Your task to perform on an android device: turn on the 12-hour format for clock Image 0: 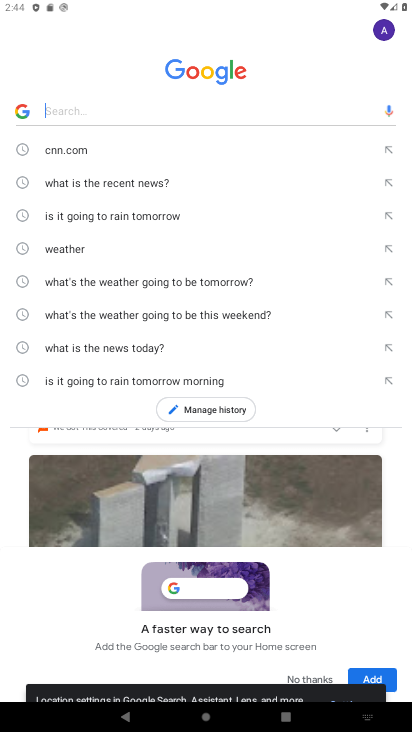
Step 0: press home button
Your task to perform on an android device: turn on the 12-hour format for clock Image 1: 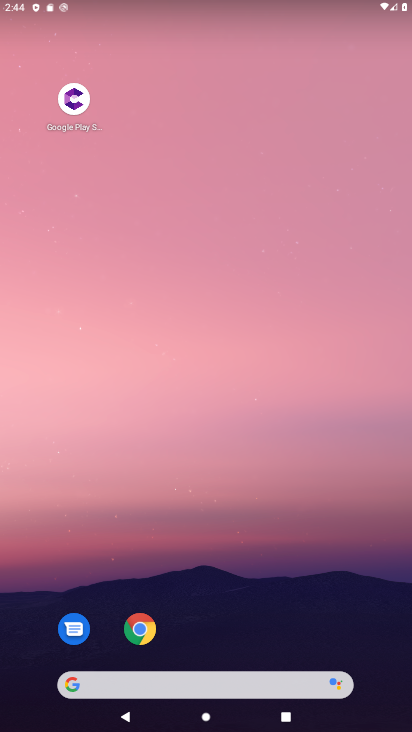
Step 1: drag from (224, 606) to (277, 288)
Your task to perform on an android device: turn on the 12-hour format for clock Image 2: 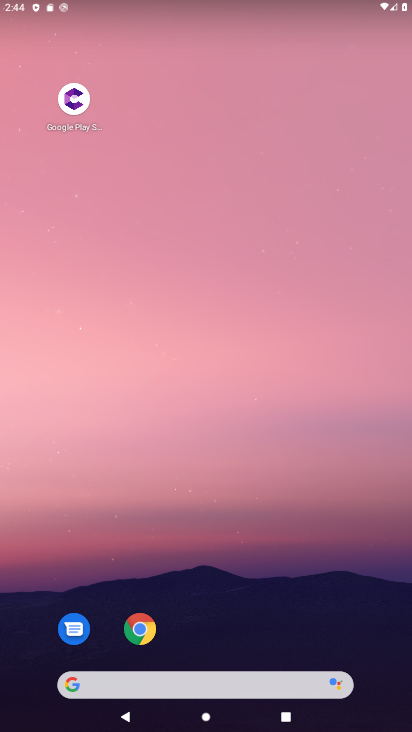
Step 2: drag from (234, 666) to (357, 95)
Your task to perform on an android device: turn on the 12-hour format for clock Image 3: 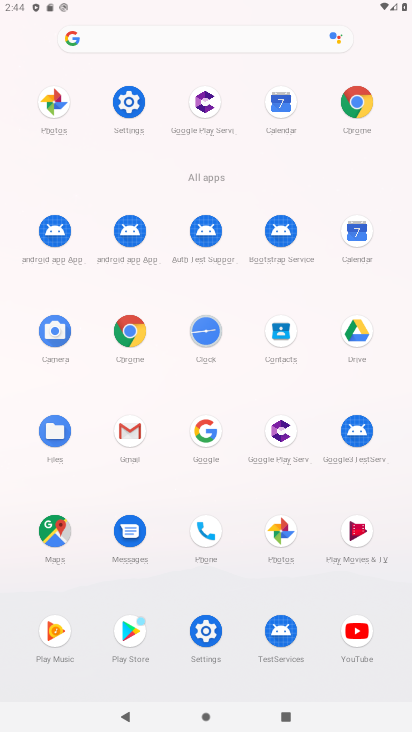
Step 3: click (209, 335)
Your task to perform on an android device: turn on the 12-hour format for clock Image 4: 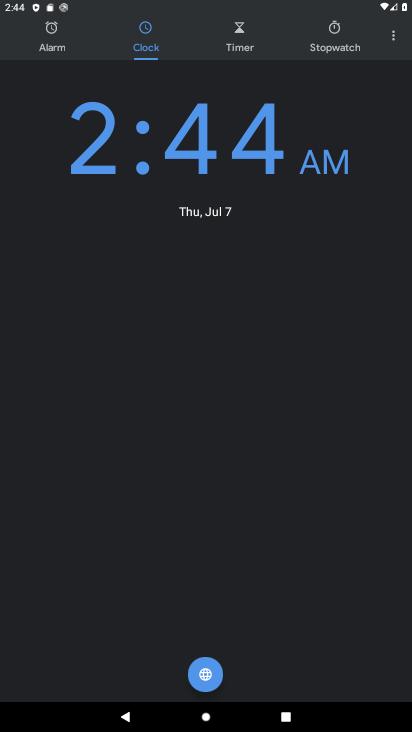
Step 4: click (390, 42)
Your task to perform on an android device: turn on the 12-hour format for clock Image 5: 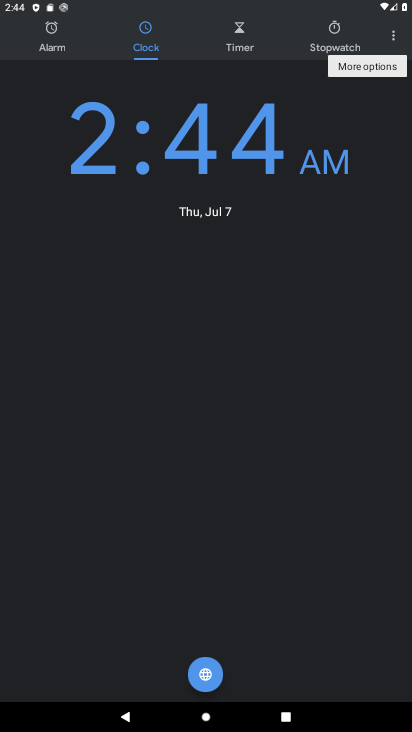
Step 5: click (393, 36)
Your task to perform on an android device: turn on the 12-hour format for clock Image 6: 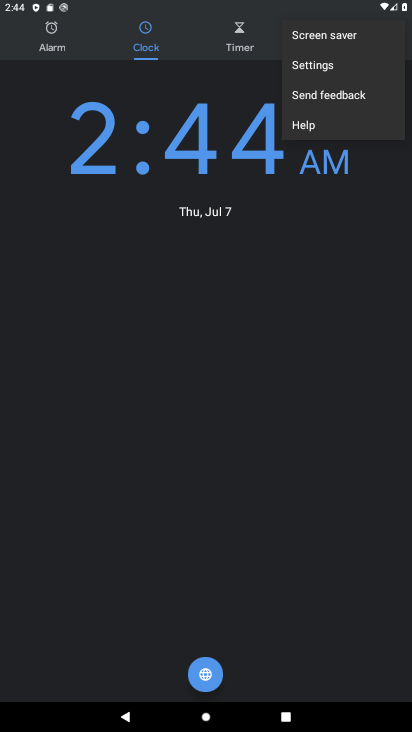
Step 6: click (367, 68)
Your task to perform on an android device: turn on the 12-hour format for clock Image 7: 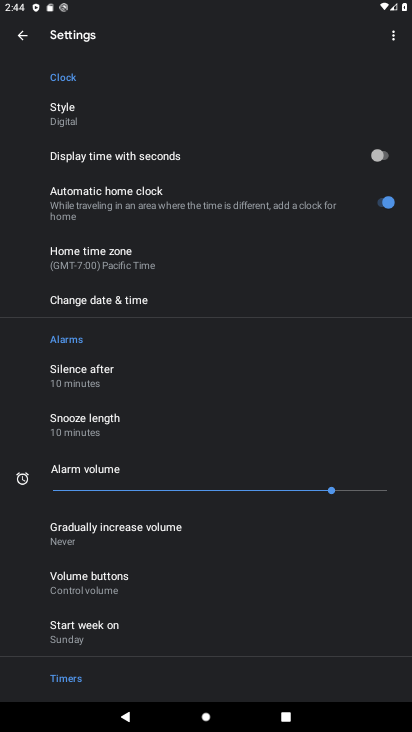
Step 7: click (155, 301)
Your task to perform on an android device: turn on the 12-hour format for clock Image 8: 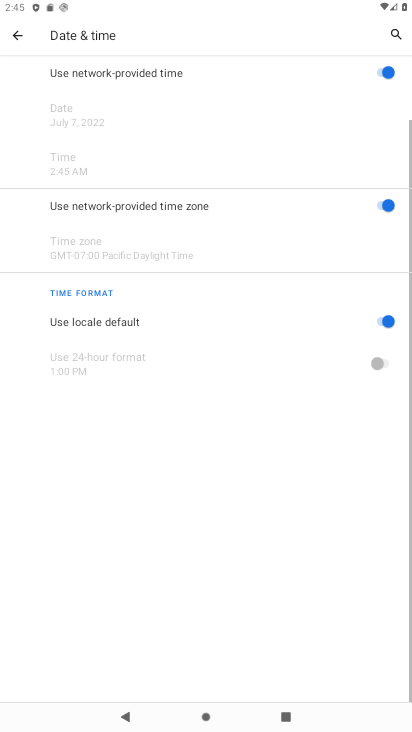
Step 8: task complete